Your task to perform on an android device: Open the Play Movies app and select the watchlist tab. Image 0: 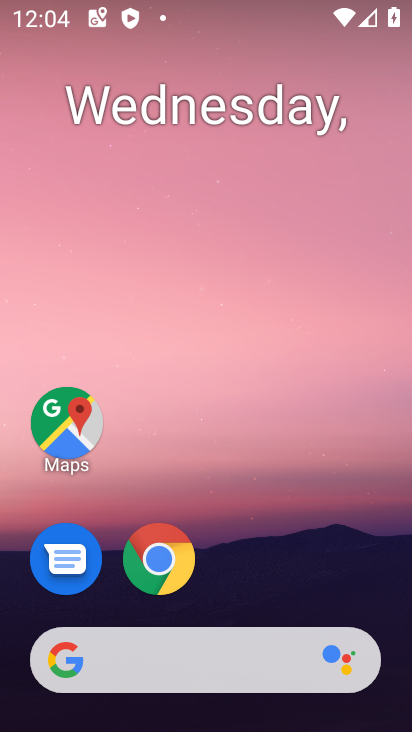
Step 0: drag from (270, 582) to (246, 0)
Your task to perform on an android device: Open the Play Movies app and select the watchlist tab. Image 1: 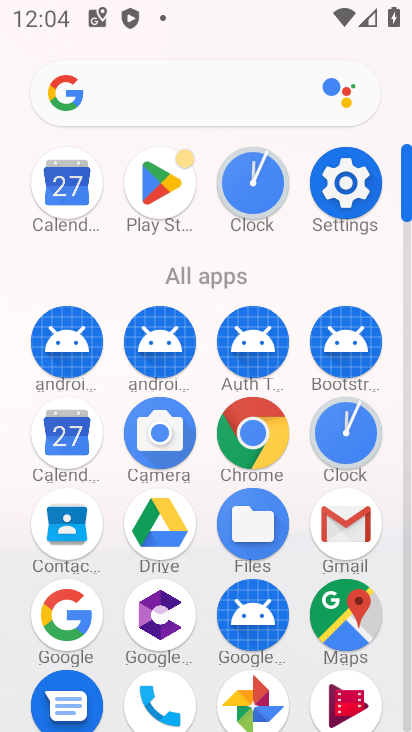
Step 1: click (352, 697)
Your task to perform on an android device: Open the Play Movies app and select the watchlist tab. Image 2: 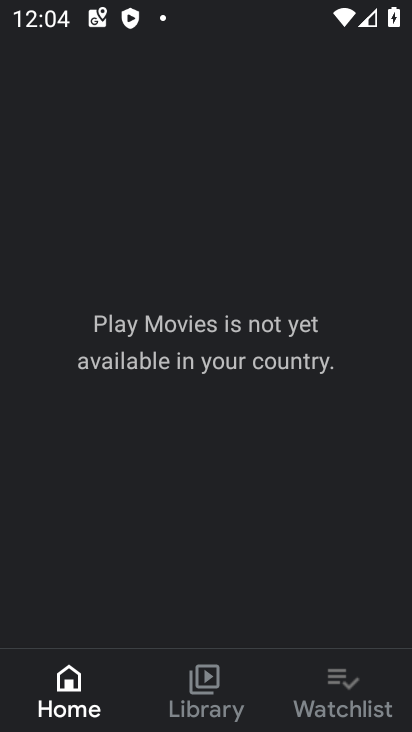
Step 2: click (337, 703)
Your task to perform on an android device: Open the Play Movies app and select the watchlist tab. Image 3: 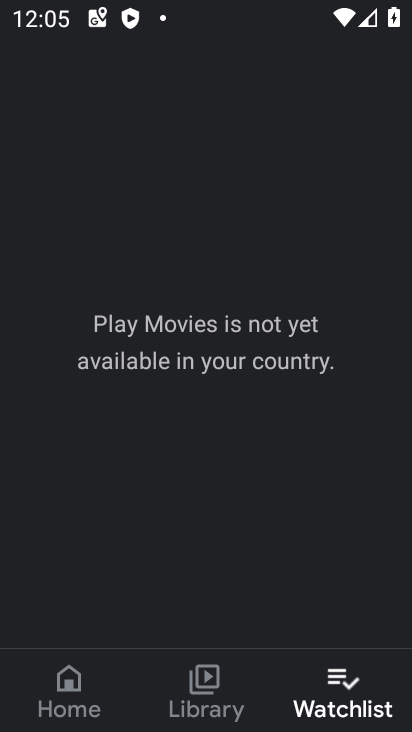
Step 3: task complete